Your task to perform on an android device: Open the Play Movies app and select the watchlist tab. Image 0: 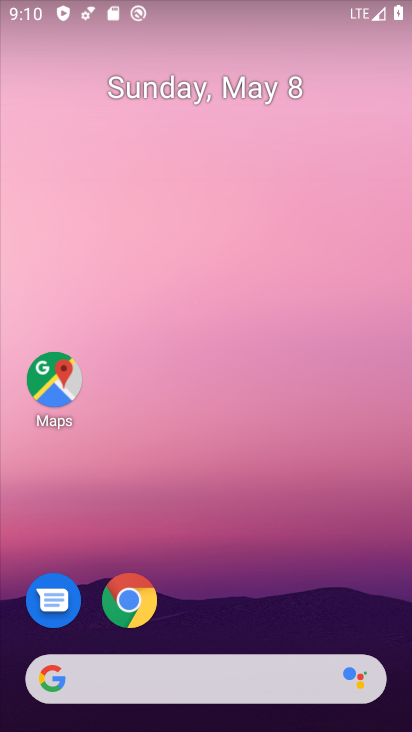
Step 0: drag from (353, 584) to (315, 1)
Your task to perform on an android device: Open the Play Movies app and select the watchlist tab. Image 1: 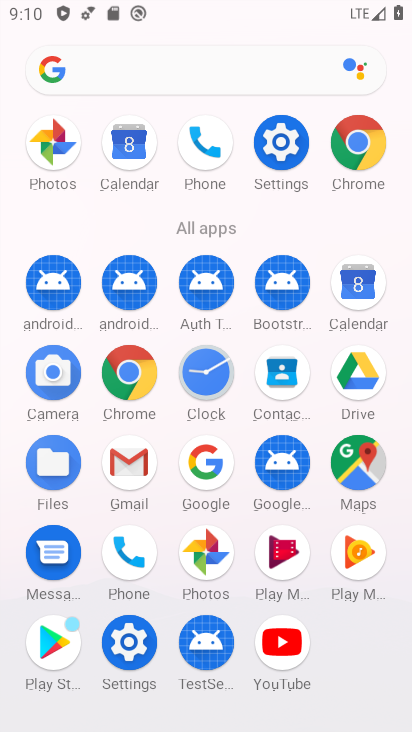
Step 1: click (279, 547)
Your task to perform on an android device: Open the Play Movies app and select the watchlist tab. Image 2: 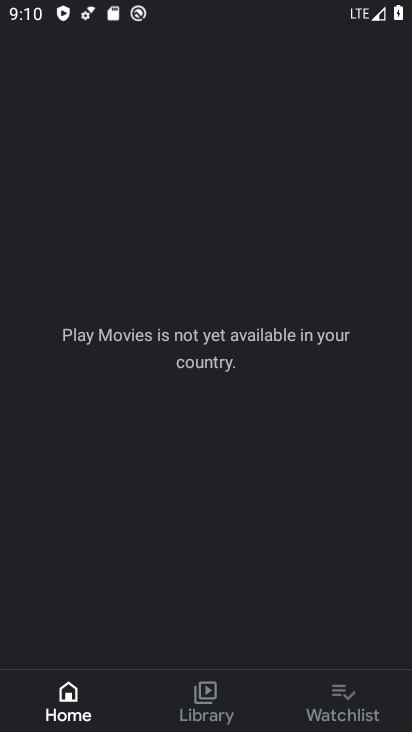
Step 2: click (354, 703)
Your task to perform on an android device: Open the Play Movies app and select the watchlist tab. Image 3: 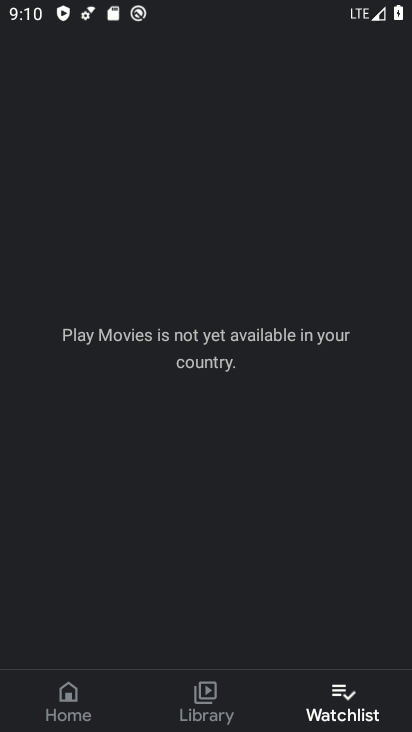
Step 3: task complete